Your task to perform on an android device: Open the stopwatch Image 0: 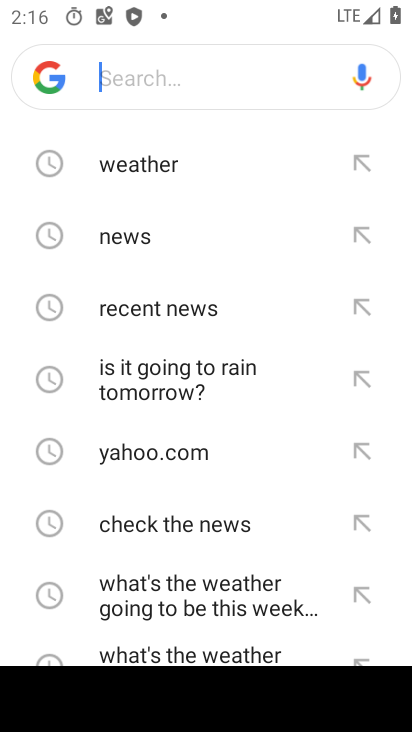
Step 0: press home button
Your task to perform on an android device: Open the stopwatch Image 1: 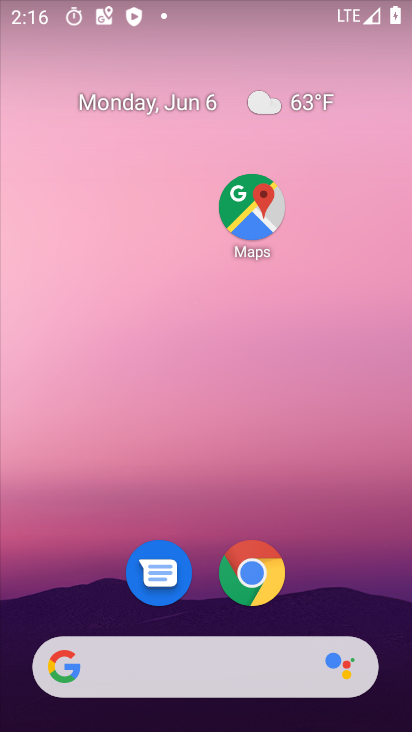
Step 1: drag from (86, 418) to (159, 231)
Your task to perform on an android device: Open the stopwatch Image 2: 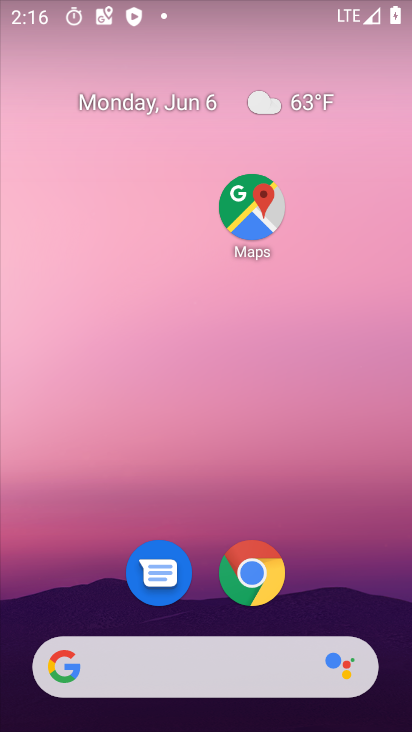
Step 2: drag from (60, 438) to (157, 85)
Your task to perform on an android device: Open the stopwatch Image 3: 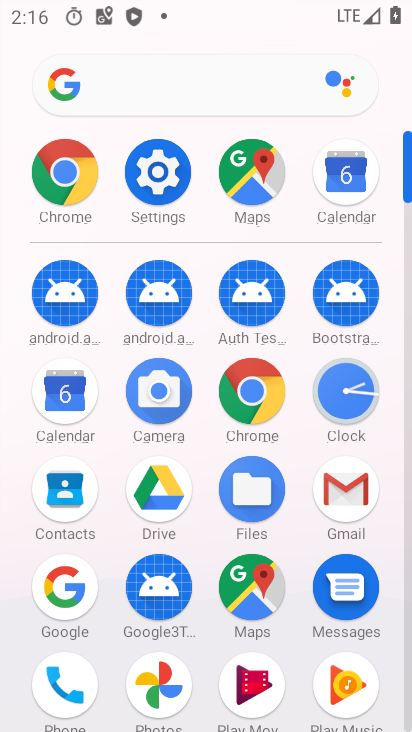
Step 3: click (353, 394)
Your task to perform on an android device: Open the stopwatch Image 4: 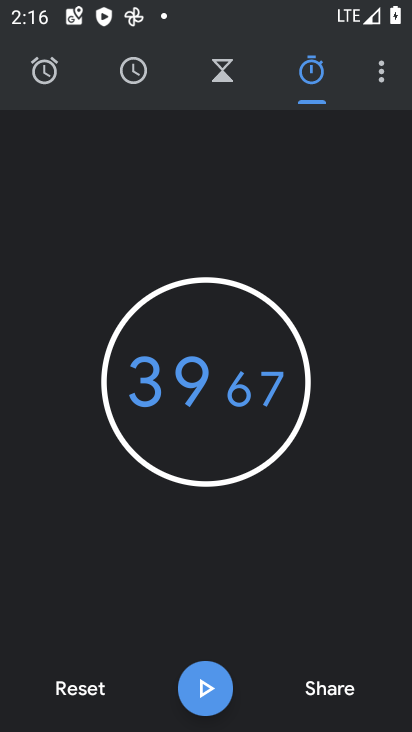
Step 4: click (306, 72)
Your task to perform on an android device: Open the stopwatch Image 5: 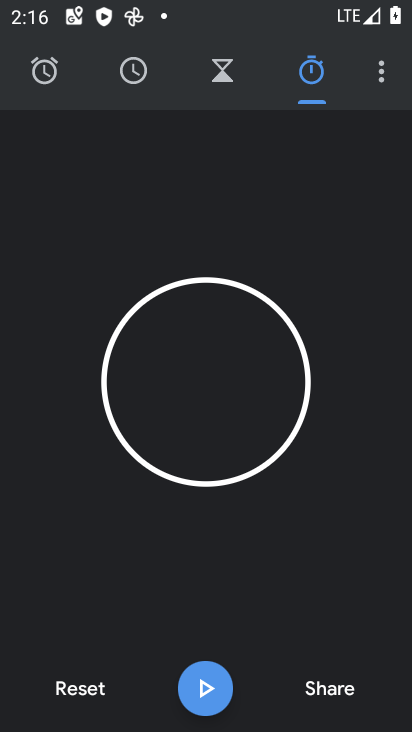
Step 5: click (90, 686)
Your task to perform on an android device: Open the stopwatch Image 6: 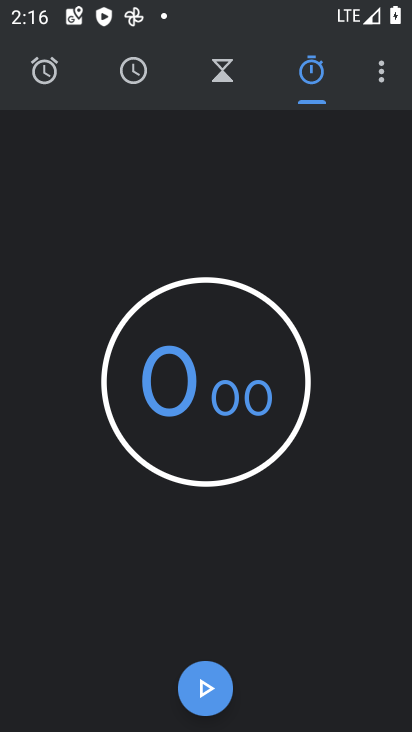
Step 6: task complete